Your task to perform on an android device: create a new album in the google photos Image 0: 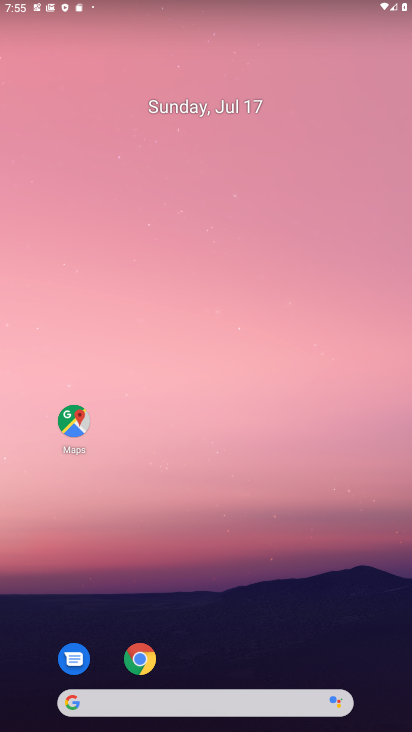
Step 0: drag from (212, 601) to (271, 162)
Your task to perform on an android device: create a new album in the google photos Image 1: 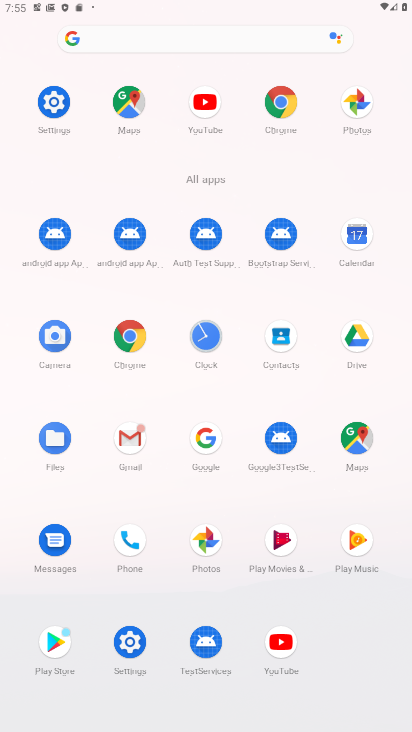
Step 1: click (213, 547)
Your task to perform on an android device: create a new album in the google photos Image 2: 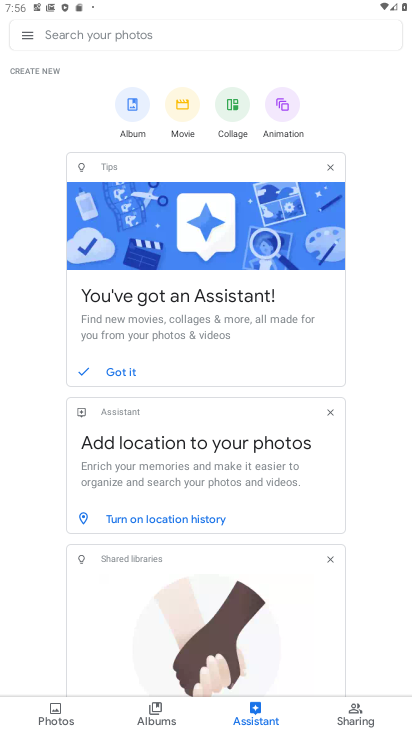
Step 2: click (52, 712)
Your task to perform on an android device: create a new album in the google photos Image 3: 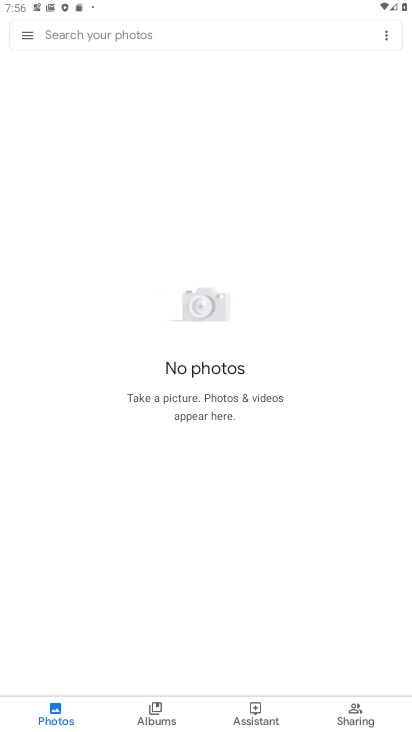
Step 3: click (387, 33)
Your task to perform on an android device: create a new album in the google photos Image 4: 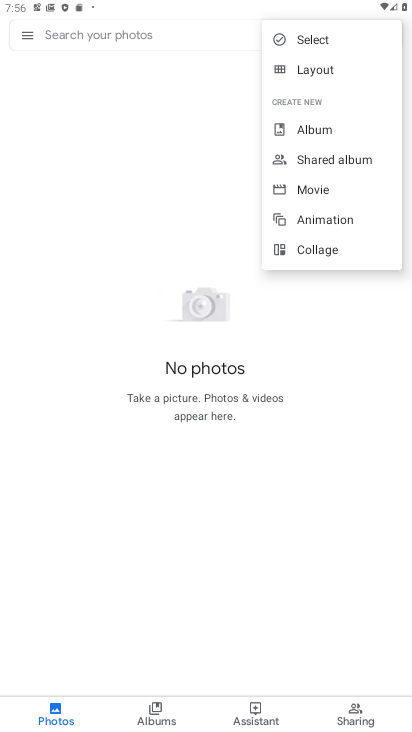
Step 4: click (305, 132)
Your task to perform on an android device: create a new album in the google photos Image 5: 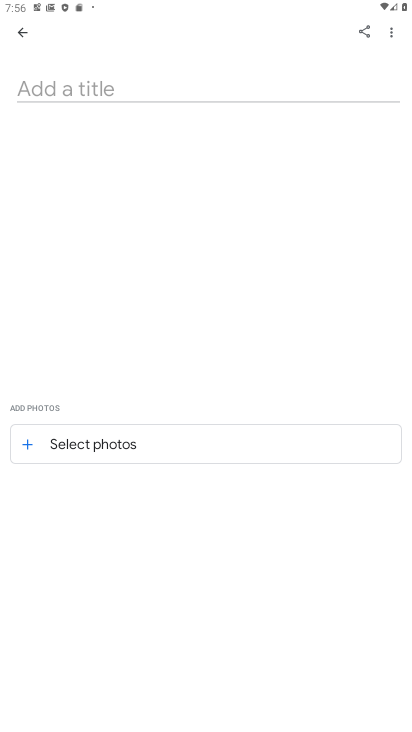
Step 5: click (116, 93)
Your task to perform on an android device: create a new album in the google photos Image 6: 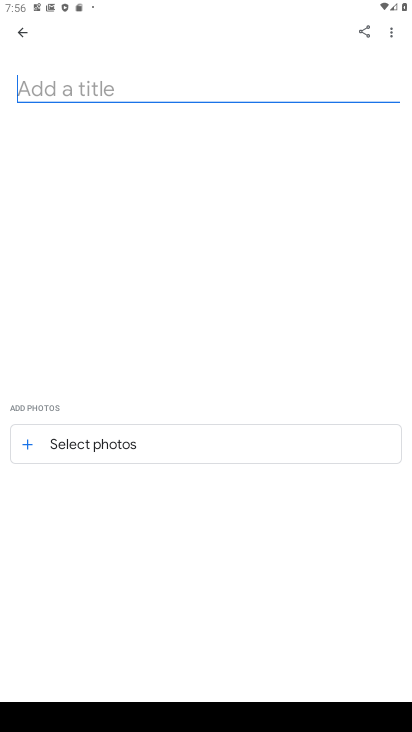
Step 6: type "rhfgh"
Your task to perform on an android device: create a new album in the google photos Image 7: 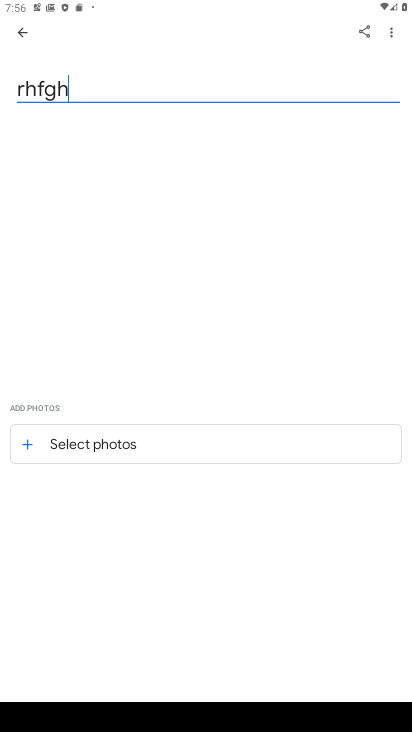
Step 7: click (24, 443)
Your task to perform on an android device: create a new album in the google photos Image 8: 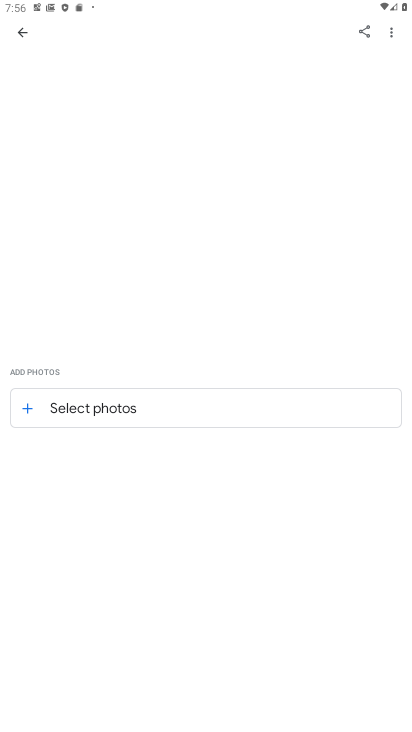
Step 8: click (32, 400)
Your task to perform on an android device: create a new album in the google photos Image 9: 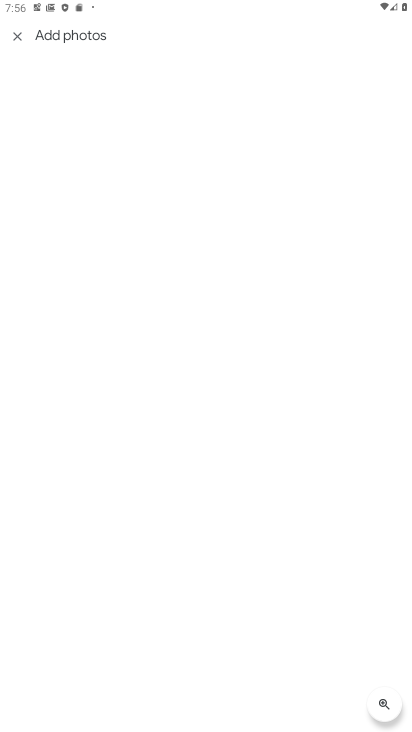
Step 9: click (86, 187)
Your task to perform on an android device: create a new album in the google photos Image 10: 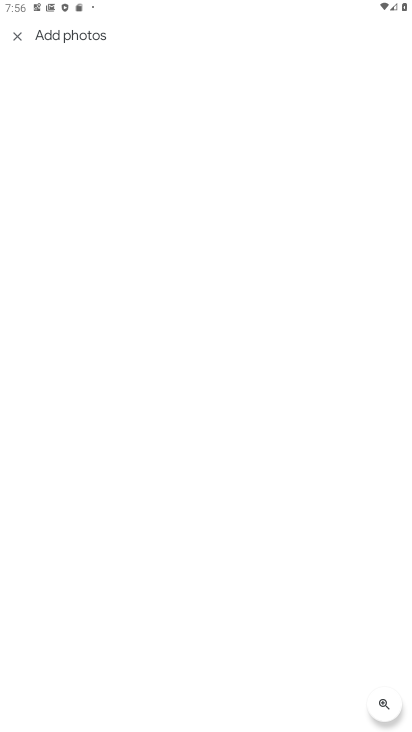
Step 10: click (128, 391)
Your task to perform on an android device: create a new album in the google photos Image 11: 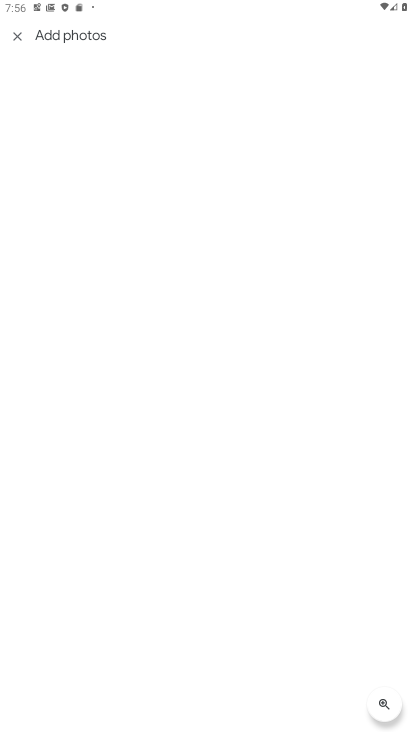
Step 11: task complete